Your task to perform on an android device: turn vacation reply on in the gmail app Image 0: 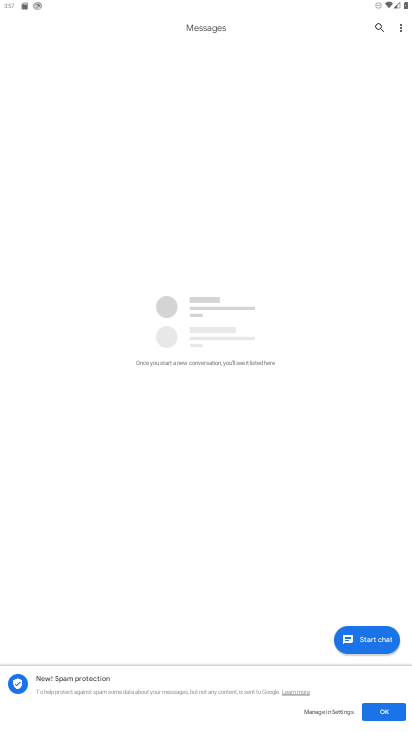
Step 0: press home button
Your task to perform on an android device: turn vacation reply on in the gmail app Image 1: 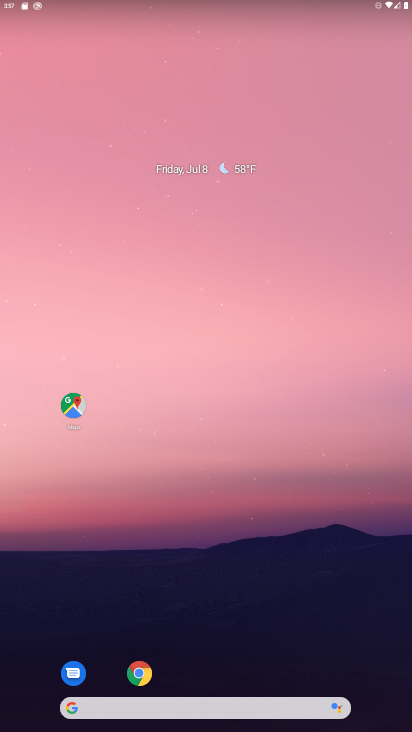
Step 1: drag from (202, 694) to (255, 330)
Your task to perform on an android device: turn vacation reply on in the gmail app Image 2: 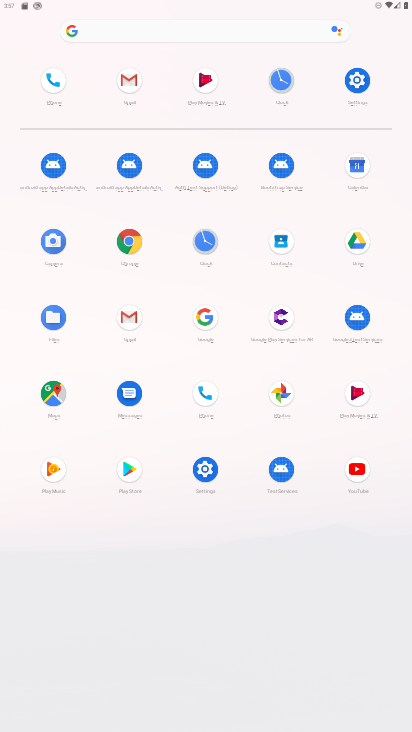
Step 2: click (137, 327)
Your task to perform on an android device: turn vacation reply on in the gmail app Image 3: 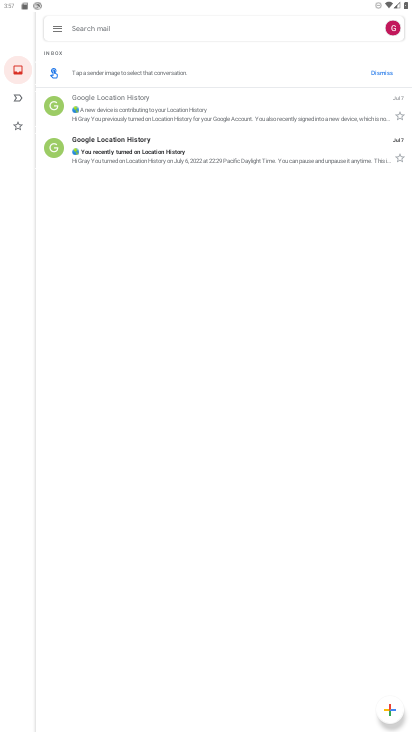
Step 3: click (52, 29)
Your task to perform on an android device: turn vacation reply on in the gmail app Image 4: 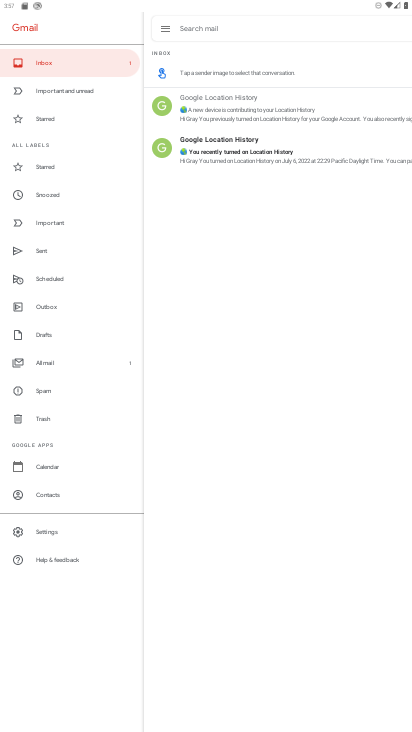
Step 4: click (40, 530)
Your task to perform on an android device: turn vacation reply on in the gmail app Image 5: 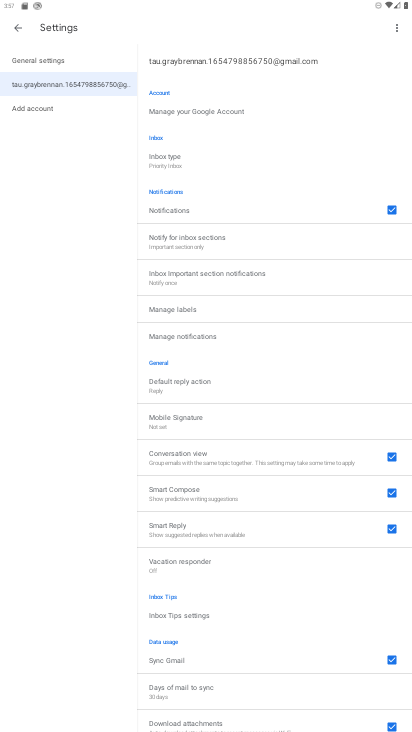
Step 5: click (159, 564)
Your task to perform on an android device: turn vacation reply on in the gmail app Image 6: 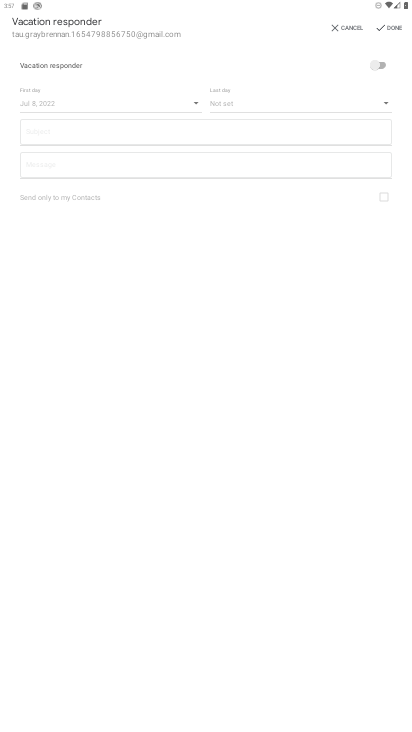
Step 6: click (381, 61)
Your task to perform on an android device: turn vacation reply on in the gmail app Image 7: 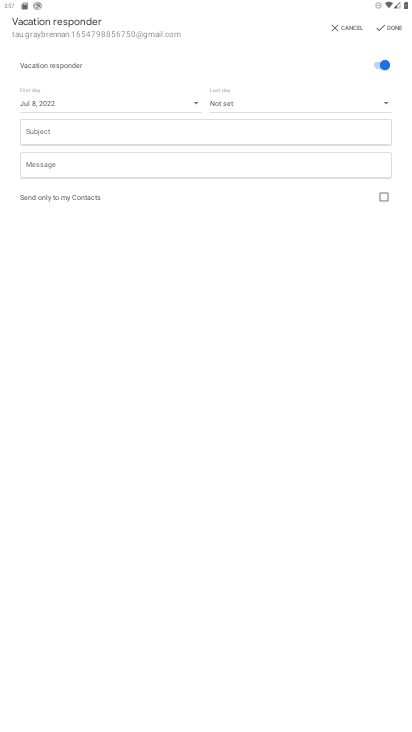
Step 7: click (400, 24)
Your task to perform on an android device: turn vacation reply on in the gmail app Image 8: 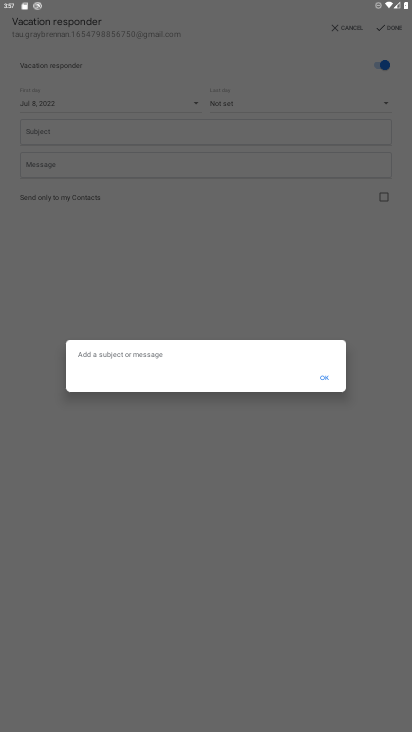
Step 8: click (331, 373)
Your task to perform on an android device: turn vacation reply on in the gmail app Image 9: 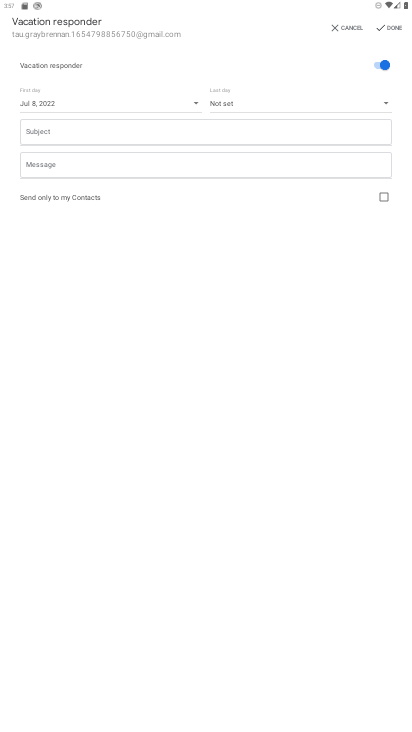
Step 9: task complete